Your task to perform on an android device: Go to Google Image 0: 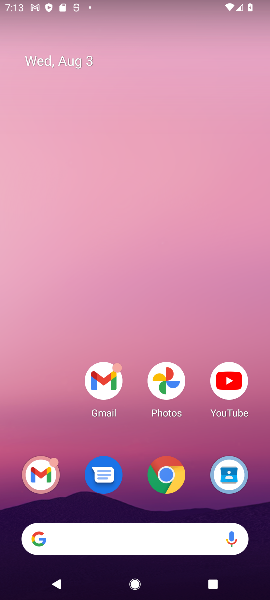
Step 0: drag from (132, 441) to (139, 190)
Your task to perform on an android device: Go to Google Image 1: 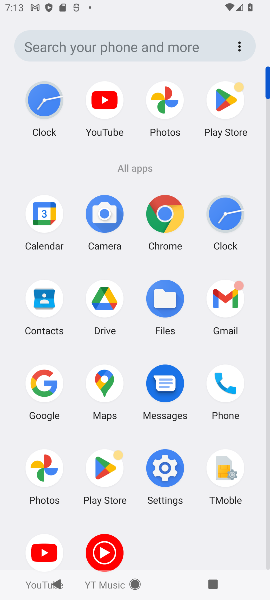
Step 1: click (139, 190)
Your task to perform on an android device: Go to Google Image 2: 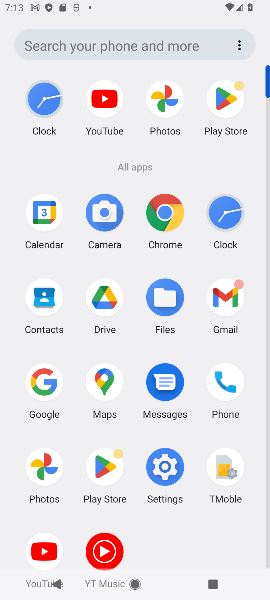
Step 2: click (47, 377)
Your task to perform on an android device: Go to Google Image 3: 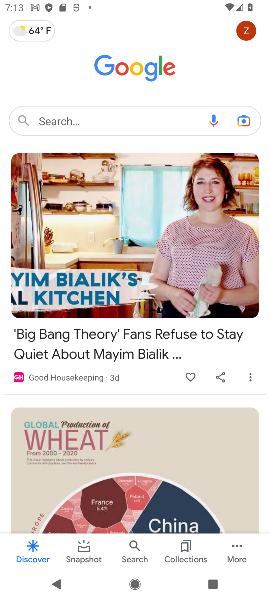
Step 3: task complete